Your task to perform on an android device: delete browsing data in the chrome app Image 0: 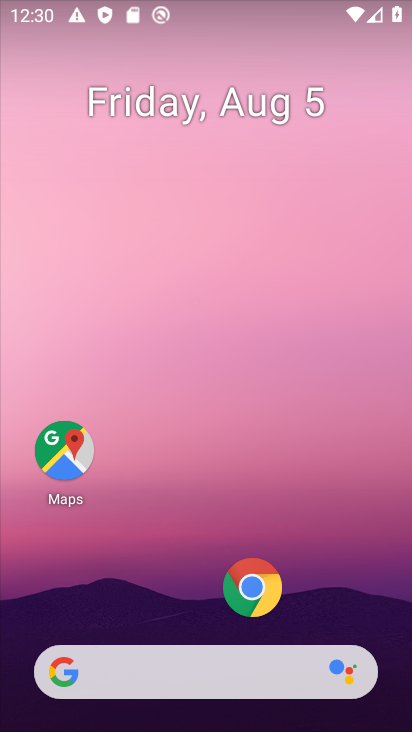
Step 0: click (266, 573)
Your task to perform on an android device: delete browsing data in the chrome app Image 1: 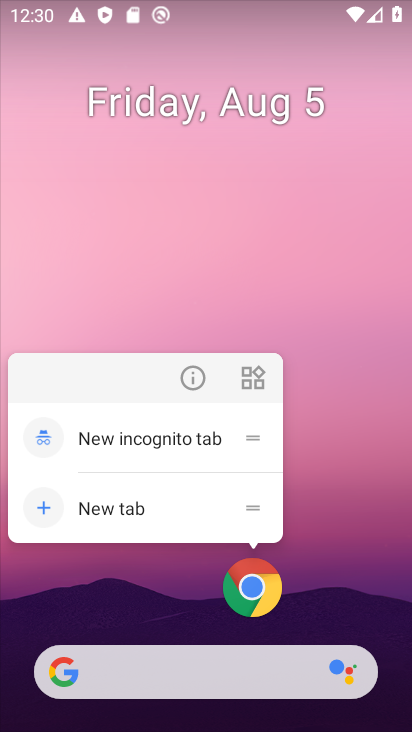
Step 1: click (266, 573)
Your task to perform on an android device: delete browsing data in the chrome app Image 2: 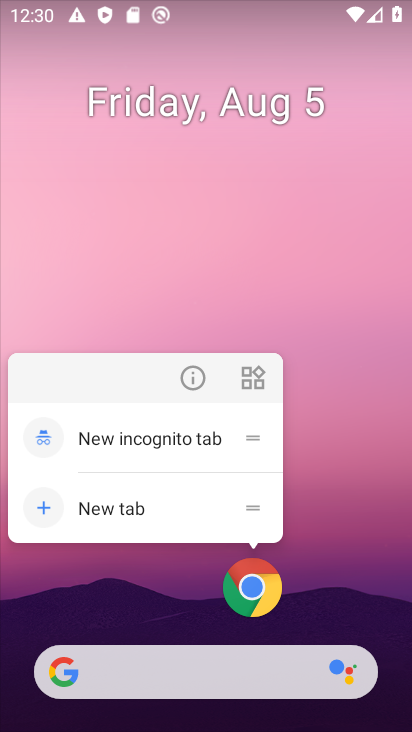
Step 2: click (255, 593)
Your task to perform on an android device: delete browsing data in the chrome app Image 3: 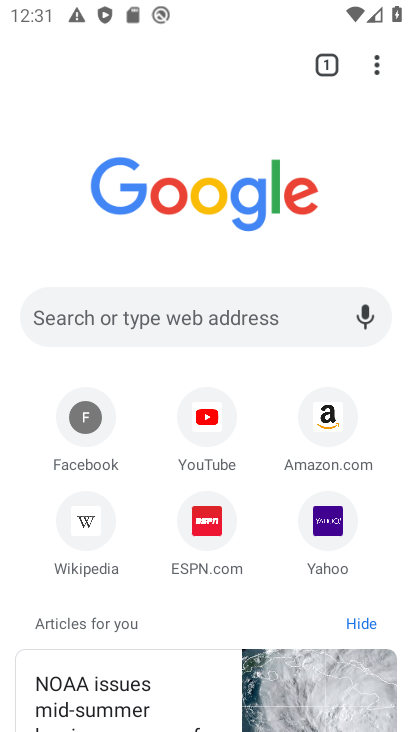
Step 3: click (377, 65)
Your task to perform on an android device: delete browsing data in the chrome app Image 4: 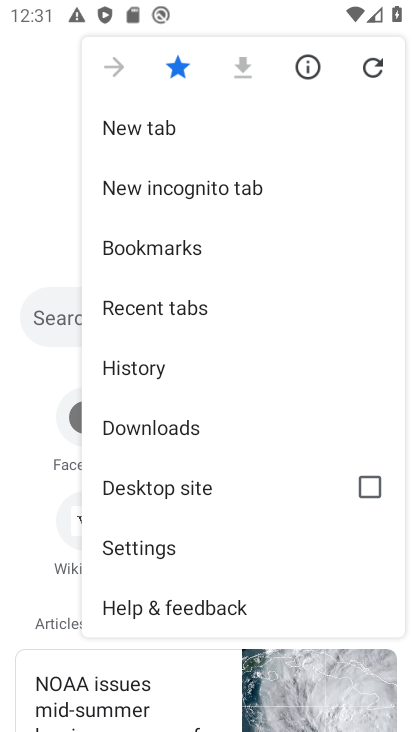
Step 4: click (155, 371)
Your task to perform on an android device: delete browsing data in the chrome app Image 5: 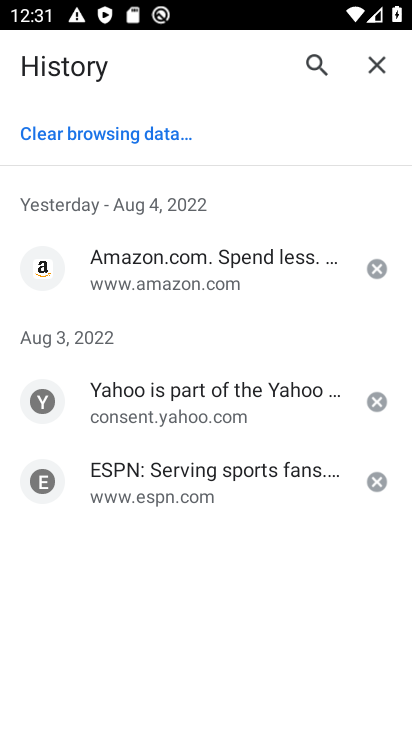
Step 5: click (139, 132)
Your task to perform on an android device: delete browsing data in the chrome app Image 6: 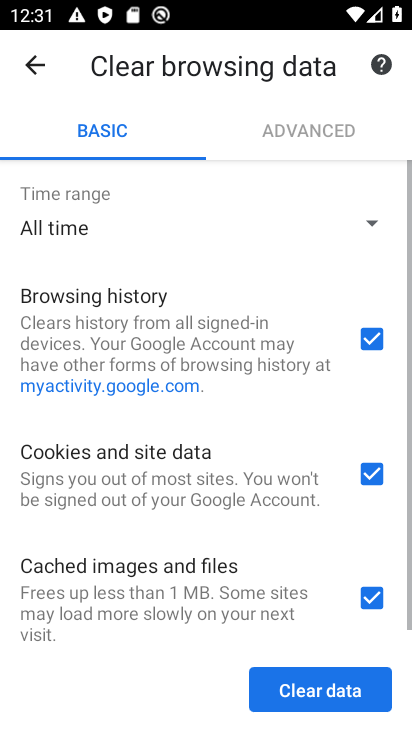
Step 6: click (333, 693)
Your task to perform on an android device: delete browsing data in the chrome app Image 7: 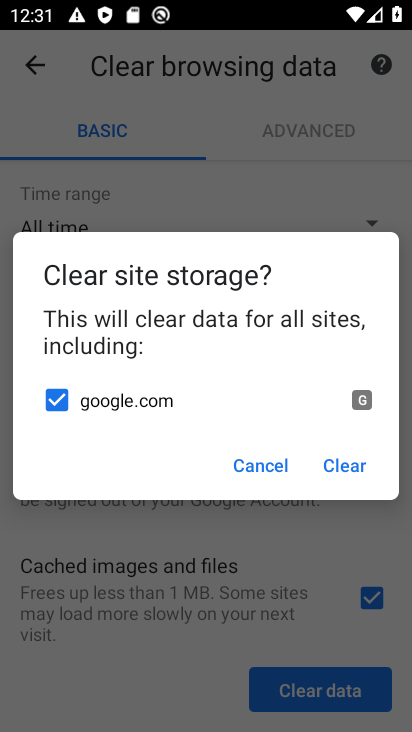
Step 7: click (338, 463)
Your task to perform on an android device: delete browsing data in the chrome app Image 8: 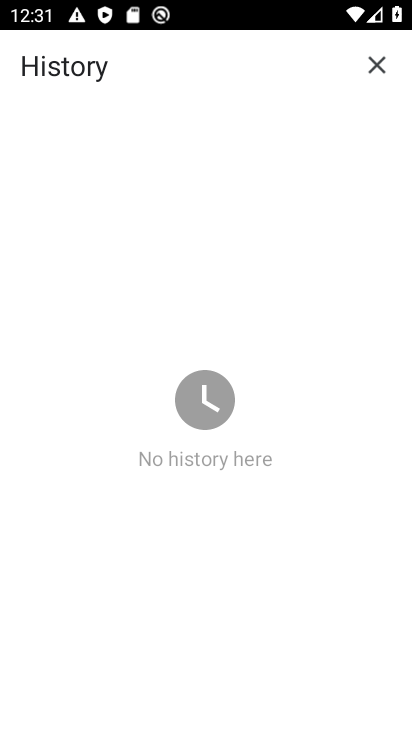
Step 8: task complete